Your task to perform on an android device: Open the files app Image 0: 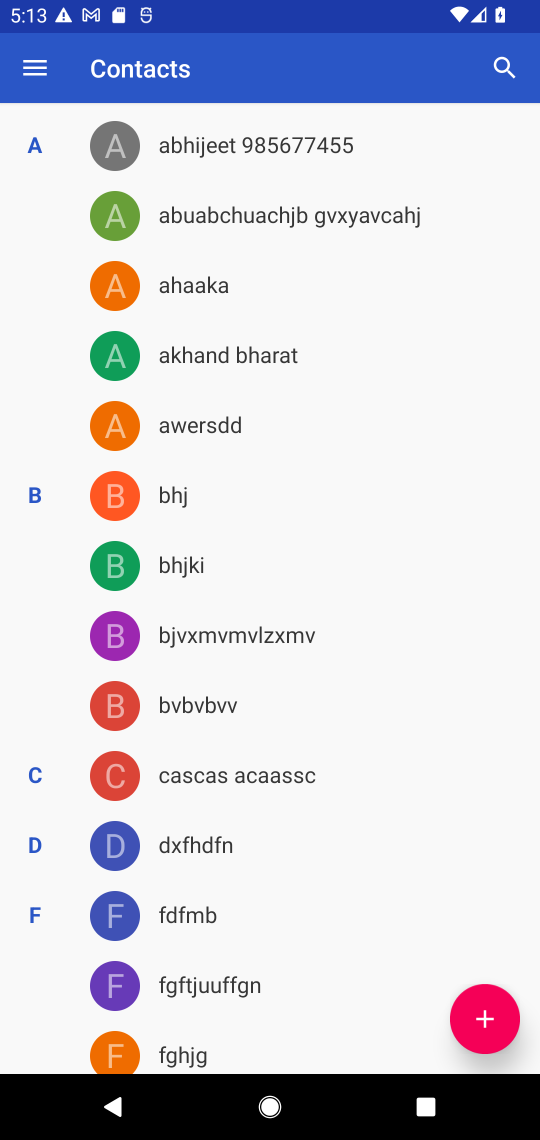
Step 0: press home button
Your task to perform on an android device: Open the files app Image 1: 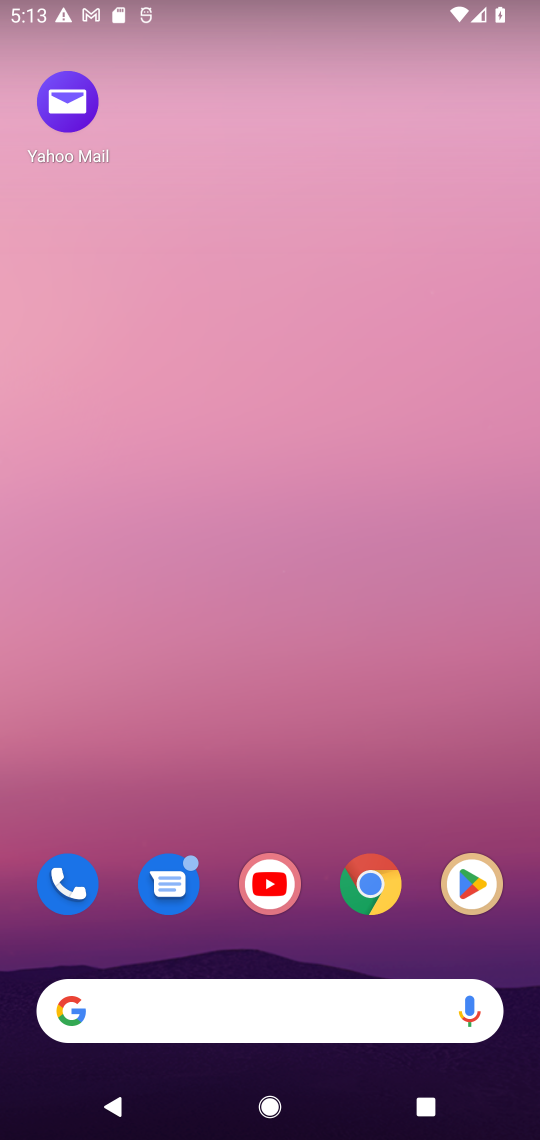
Step 1: drag from (305, 965) to (418, 7)
Your task to perform on an android device: Open the files app Image 2: 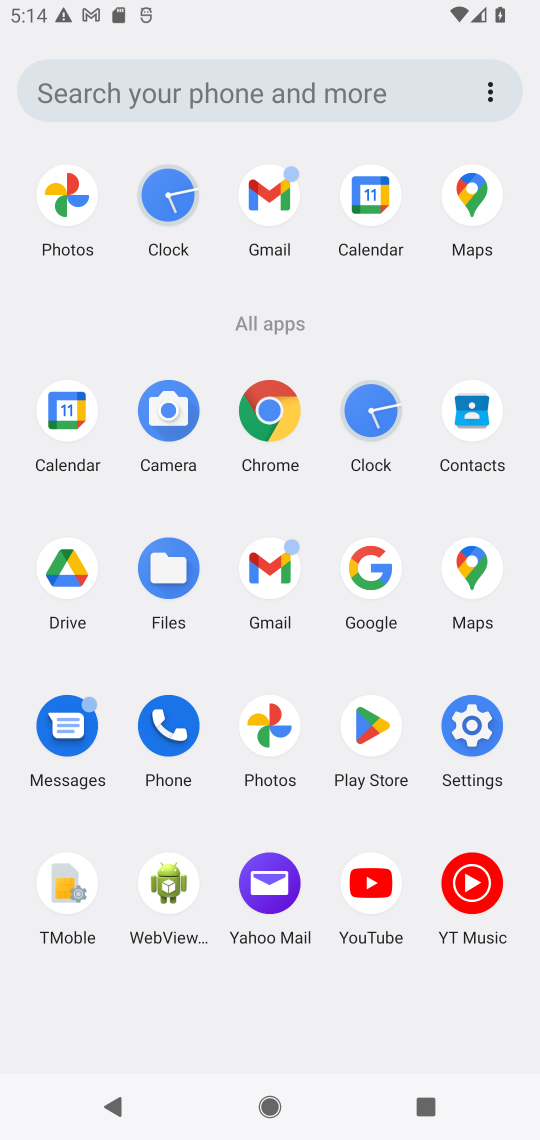
Step 2: click (174, 568)
Your task to perform on an android device: Open the files app Image 3: 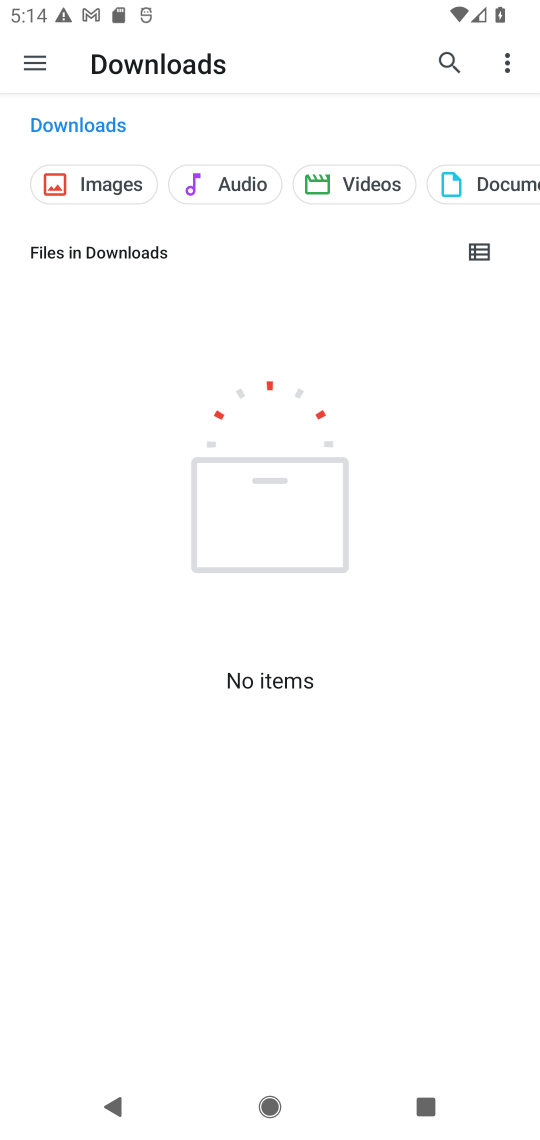
Step 3: task complete